Your task to perform on an android device: Open notification settings Image 0: 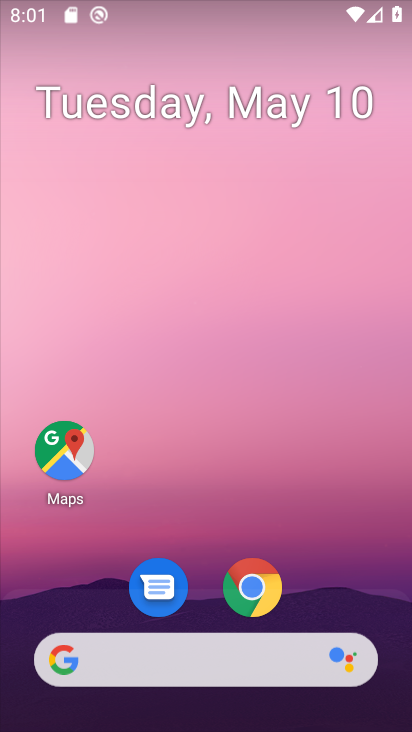
Step 0: drag from (334, 599) to (286, 73)
Your task to perform on an android device: Open notification settings Image 1: 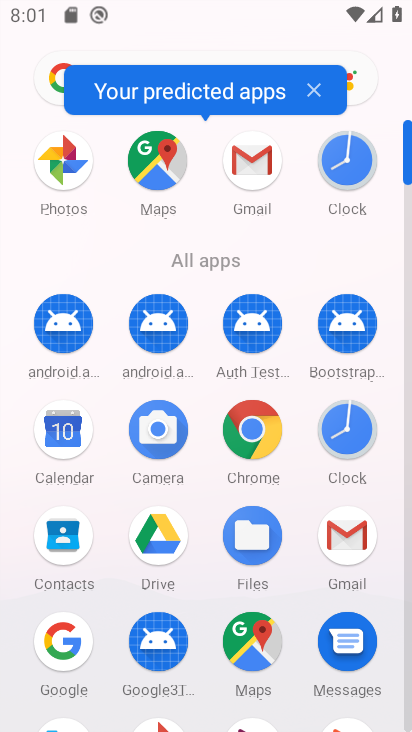
Step 1: drag from (378, 609) to (373, 242)
Your task to perform on an android device: Open notification settings Image 2: 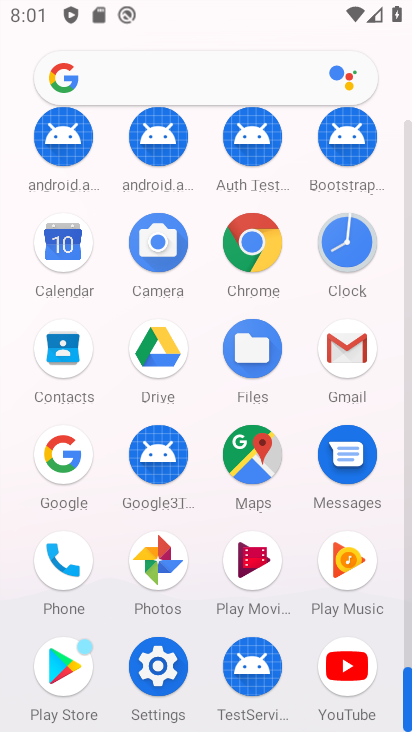
Step 2: click (137, 684)
Your task to perform on an android device: Open notification settings Image 3: 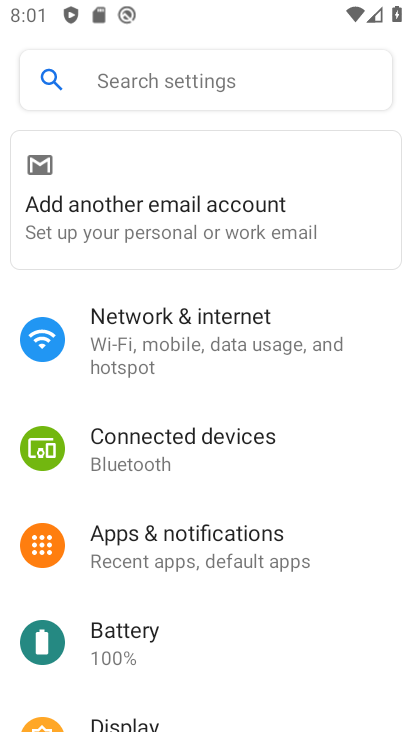
Step 3: click (238, 538)
Your task to perform on an android device: Open notification settings Image 4: 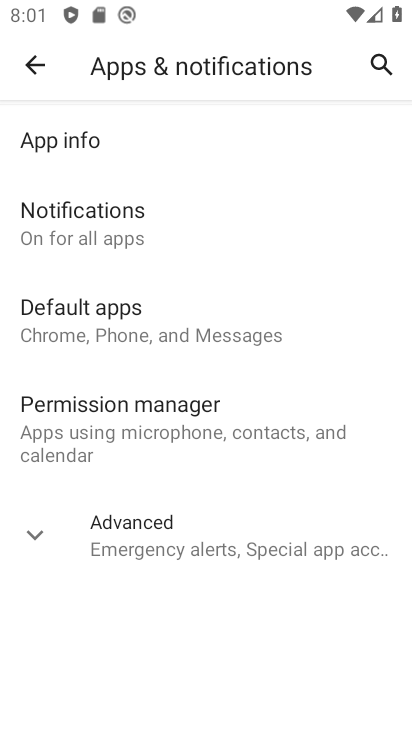
Step 4: drag from (216, 621) to (278, 219)
Your task to perform on an android device: Open notification settings Image 5: 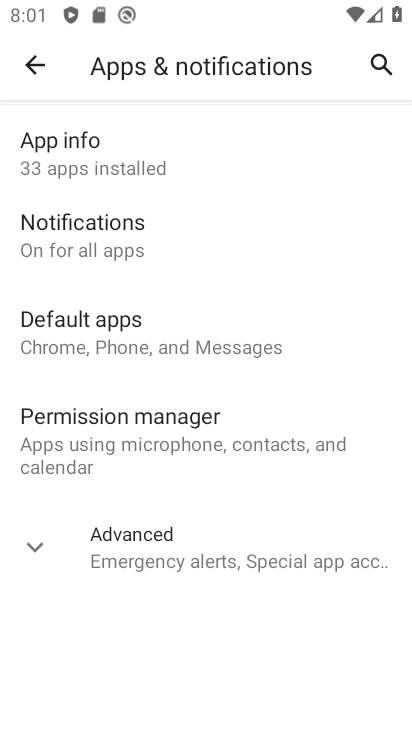
Step 5: click (94, 227)
Your task to perform on an android device: Open notification settings Image 6: 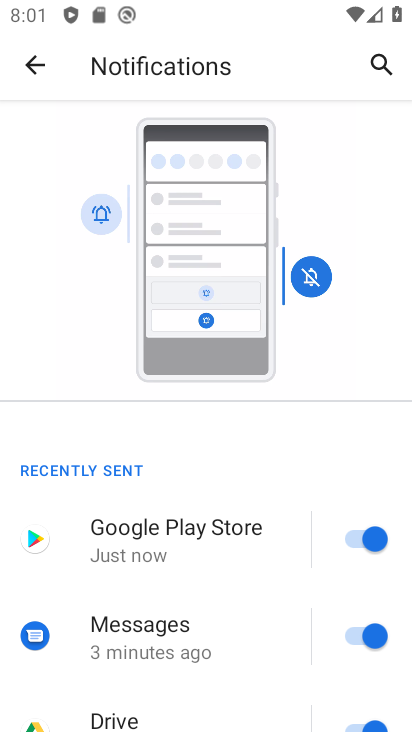
Step 6: task complete